Your task to perform on an android device: turn on data saver in the chrome app Image 0: 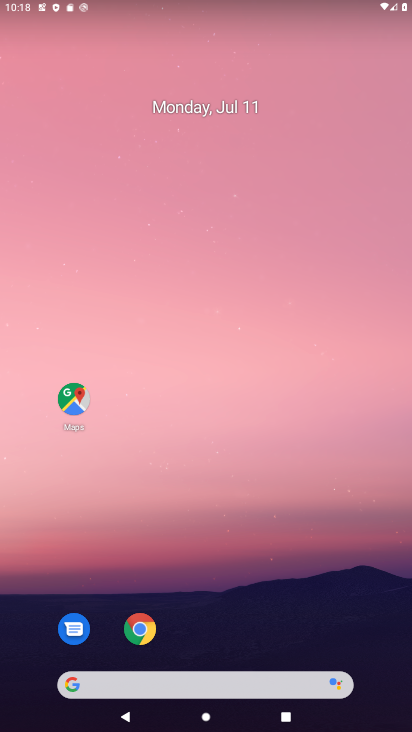
Step 0: click (135, 633)
Your task to perform on an android device: turn on data saver in the chrome app Image 1: 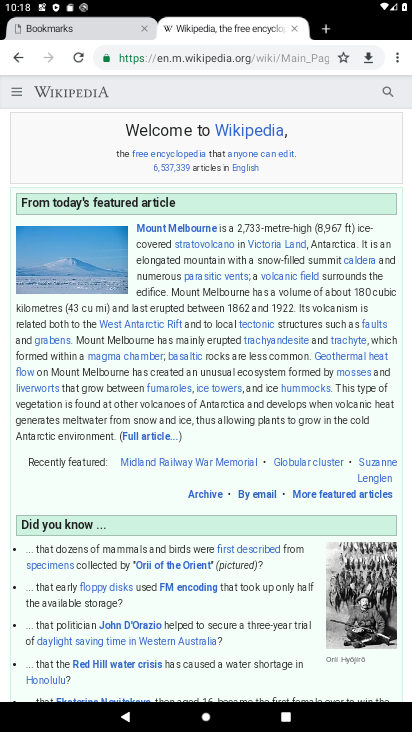
Step 1: click (394, 48)
Your task to perform on an android device: turn on data saver in the chrome app Image 2: 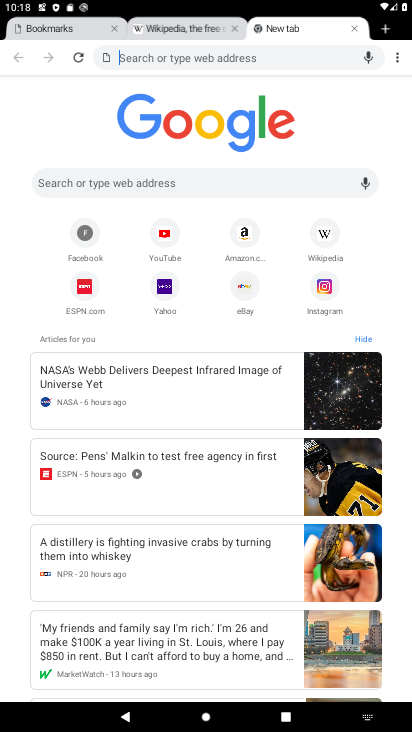
Step 2: click (391, 57)
Your task to perform on an android device: turn on data saver in the chrome app Image 3: 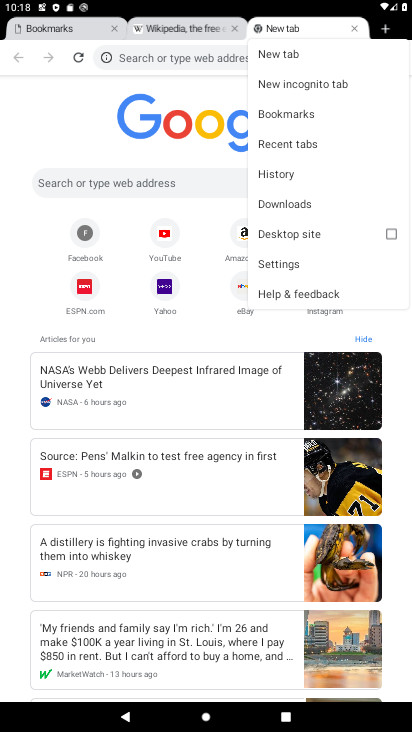
Step 3: click (282, 260)
Your task to perform on an android device: turn on data saver in the chrome app Image 4: 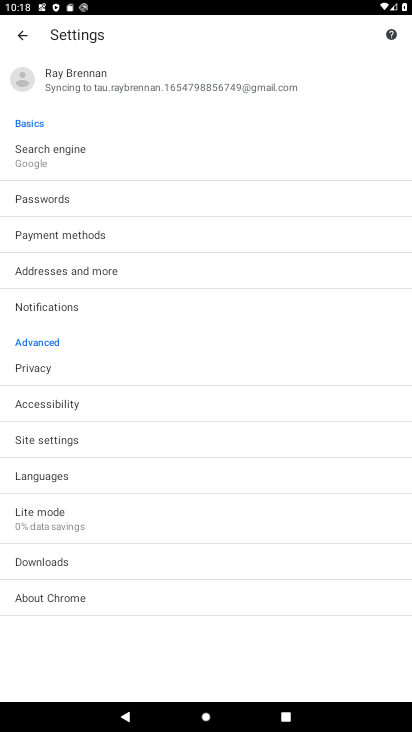
Step 4: click (95, 521)
Your task to perform on an android device: turn on data saver in the chrome app Image 5: 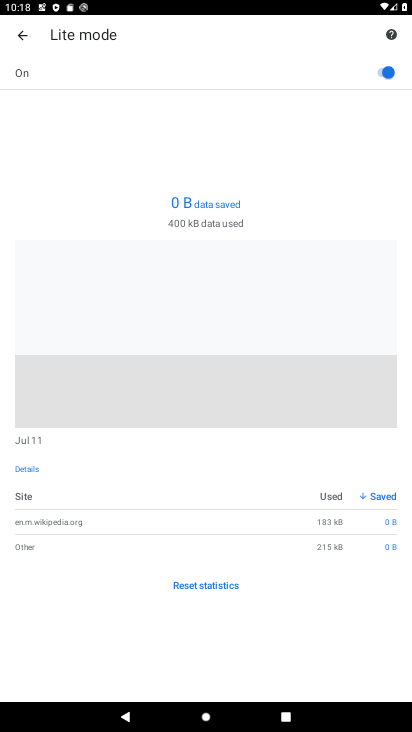
Step 5: task complete